Your task to perform on an android device: Open CNN.com Image 0: 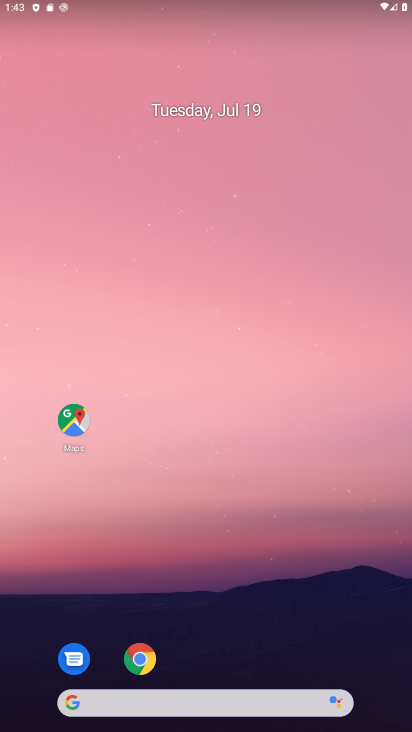
Step 0: drag from (239, 659) to (205, 119)
Your task to perform on an android device: Open CNN.com Image 1: 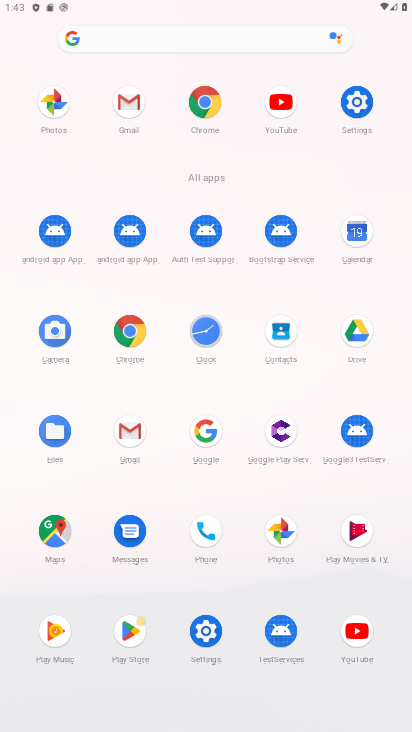
Step 1: click (202, 437)
Your task to perform on an android device: Open CNN.com Image 2: 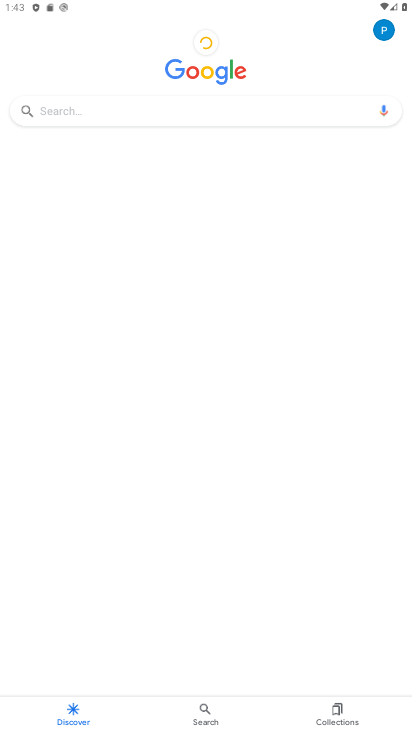
Step 2: click (201, 112)
Your task to perform on an android device: Open CNN.com Image 3: 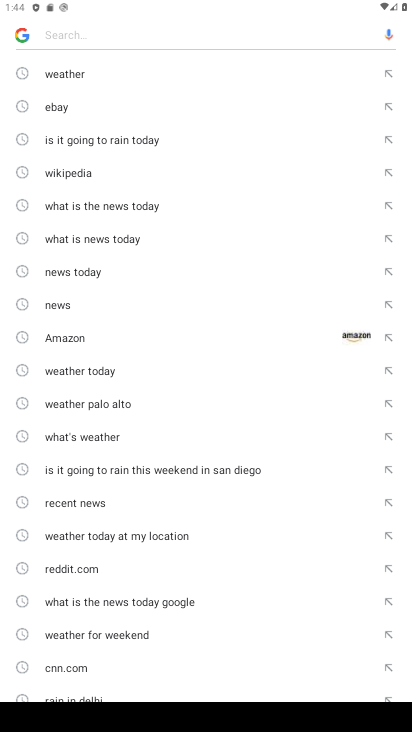
Step 3: type "cnn.com"
Your task to perform on an android device: Open CNN.com Image 4: 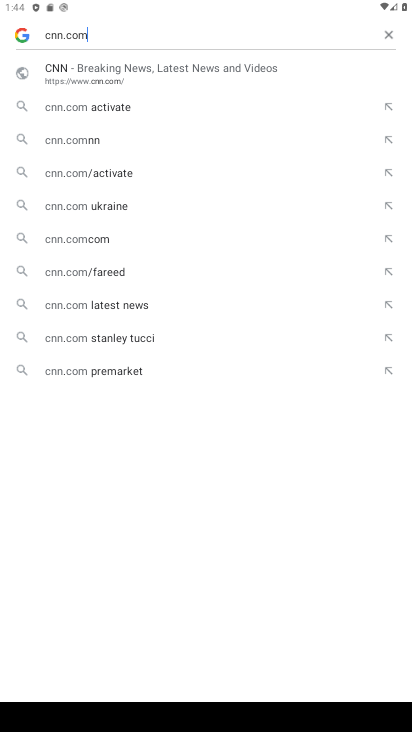
Step 4: click (119, 75)
Your task to perform on an android device: Open CNN.com Image 5: 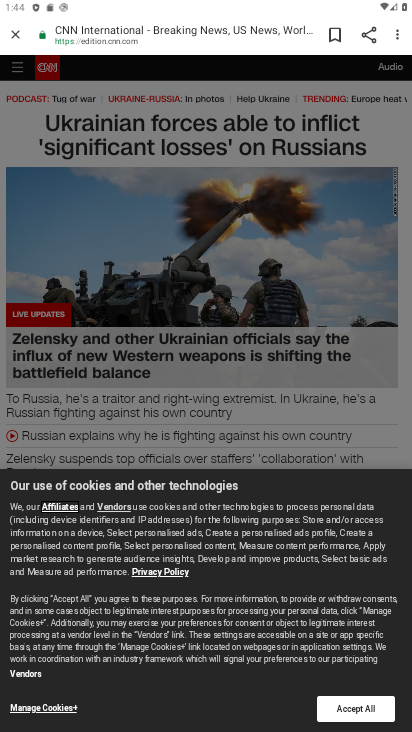
Step 5: task complete